Your task to perform on an android device: Show me popular videos on Youtube Image 0: 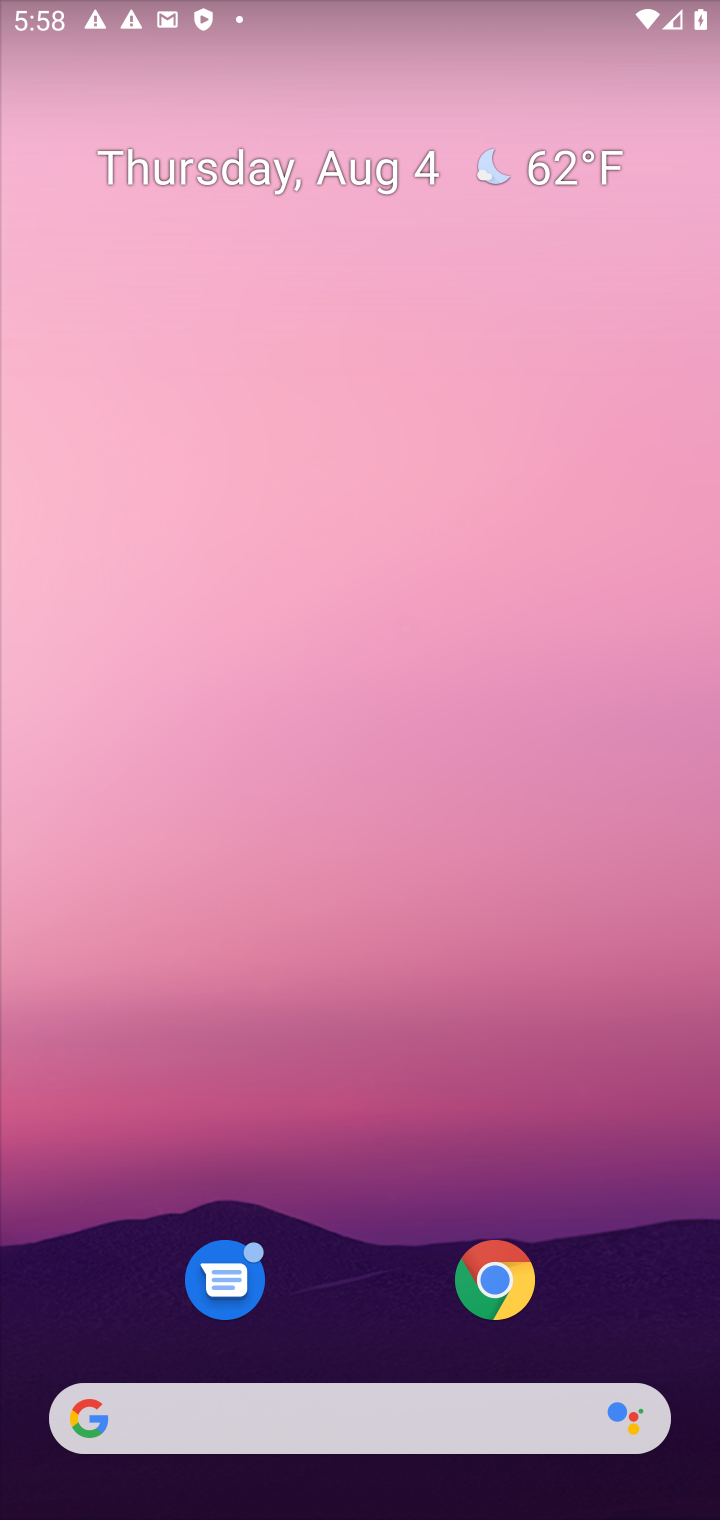
Step 0: drag from (349, 1256) to (325, 336)
Your task to perform on an android device: Show me popular videos on Youtube Image 1: 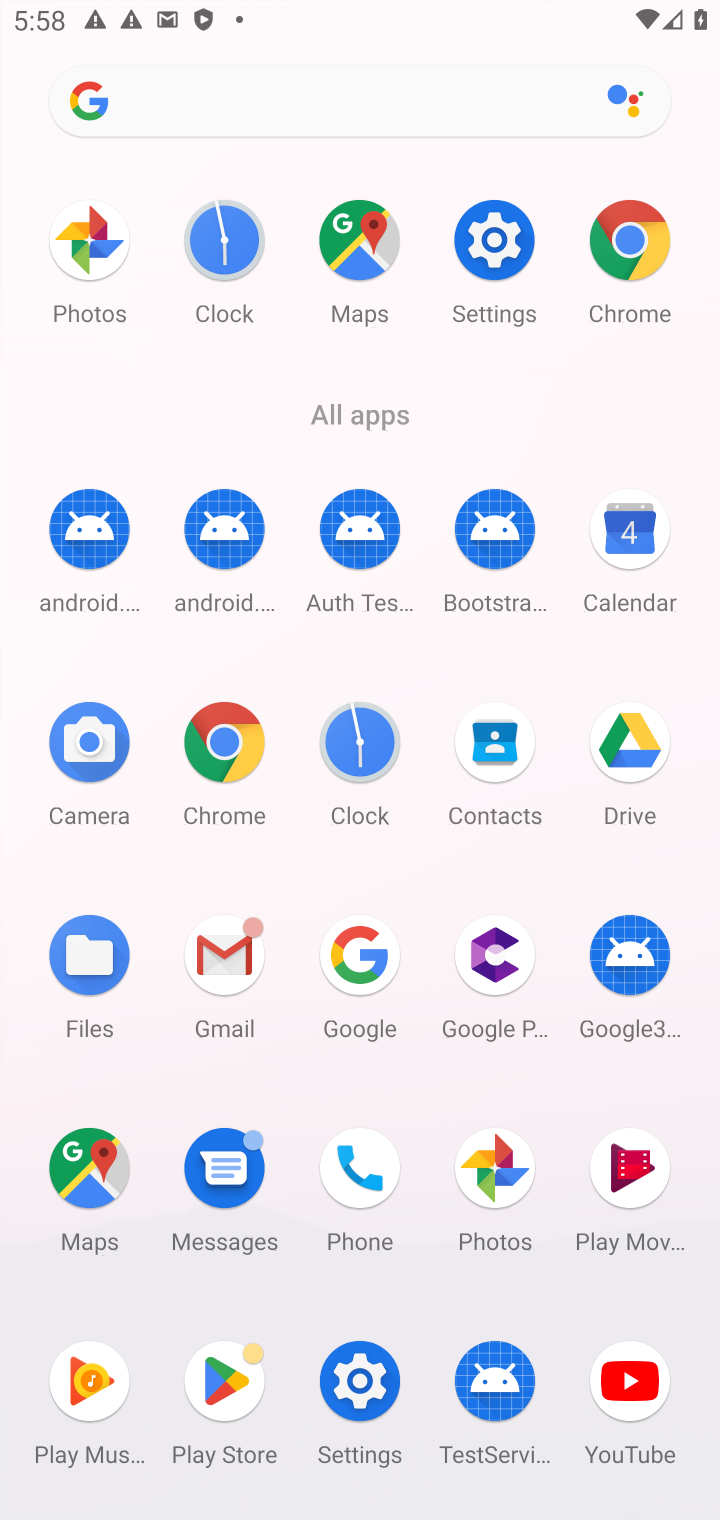
Step 1: click (619, 1450)
Your task to perform on an android device: Show me popular videos on Youtube Image 2: 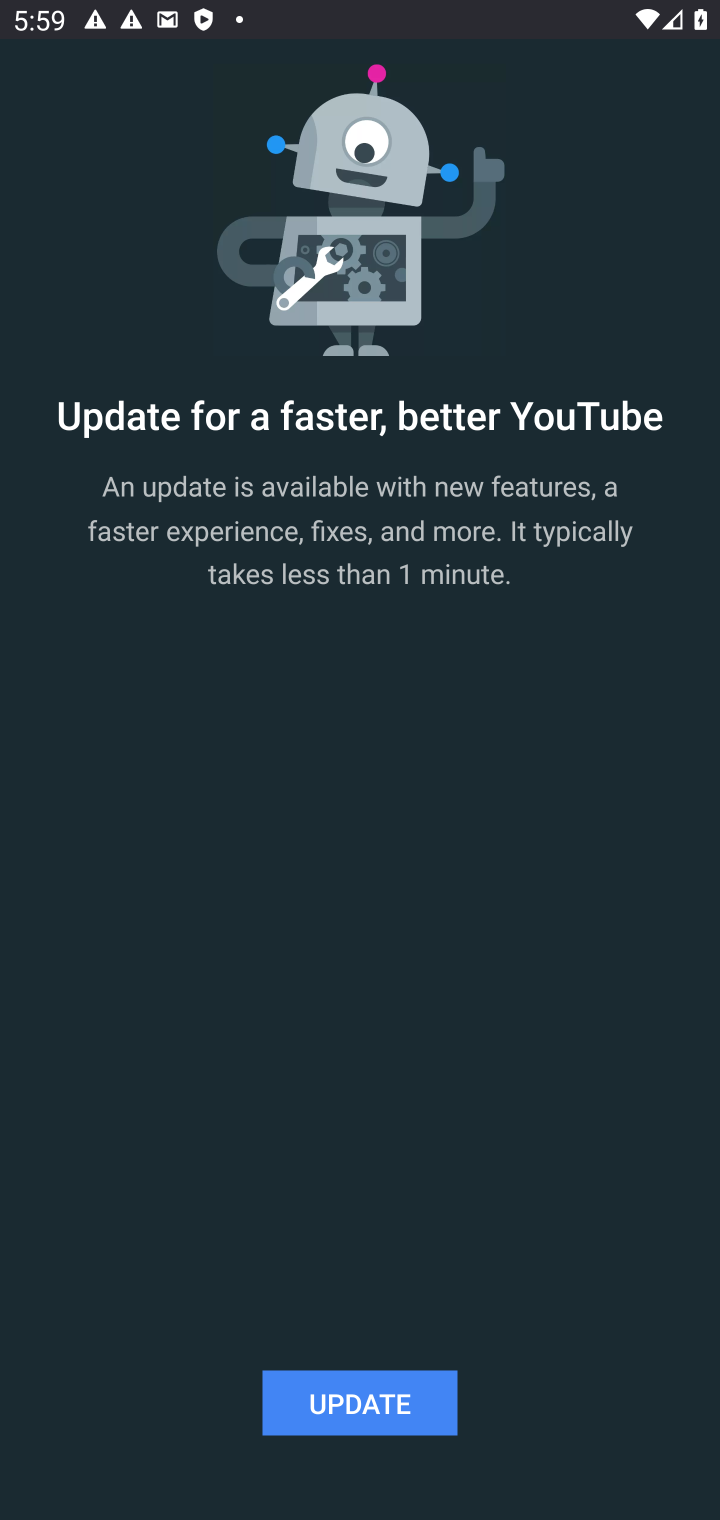
Step 2: press back button
Your task to perform on an android device: Show me popular videos on Youtube Image 3: 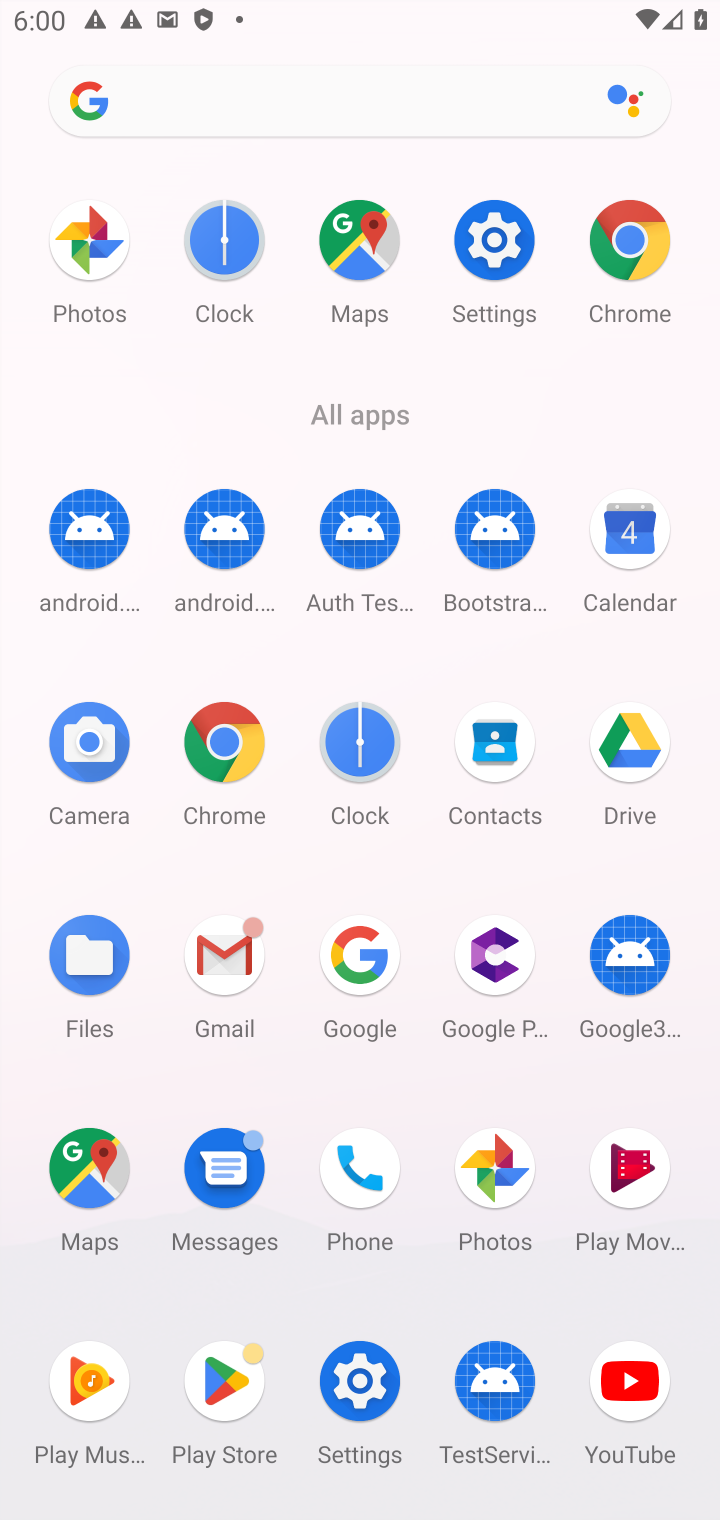
Step 3: click (628, 1394)
Your task to perform on an android device: Show me popular videos on Youtube Image 4: 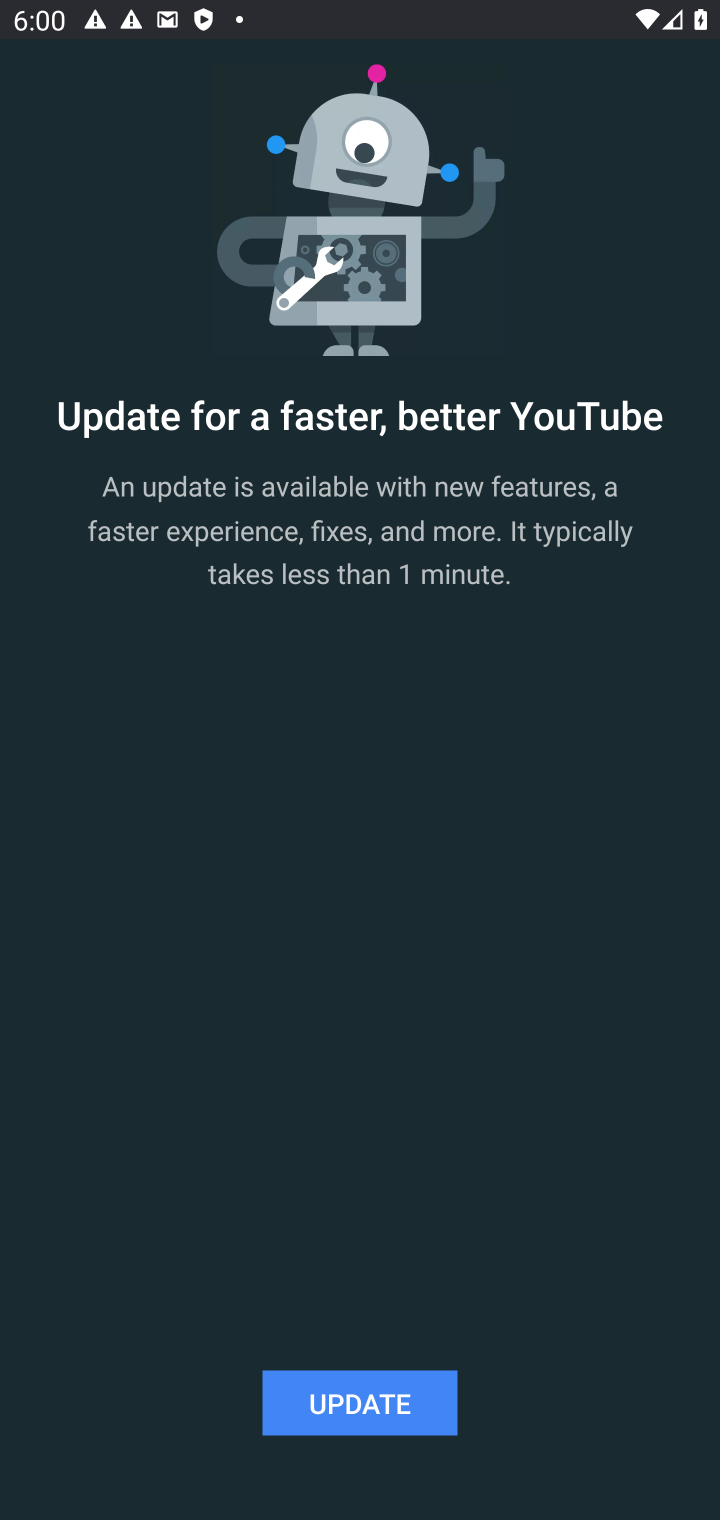
Step 4: click (366, 1391)
Your task to perform on an android device: Show me popular videos on Youtube Image 5: 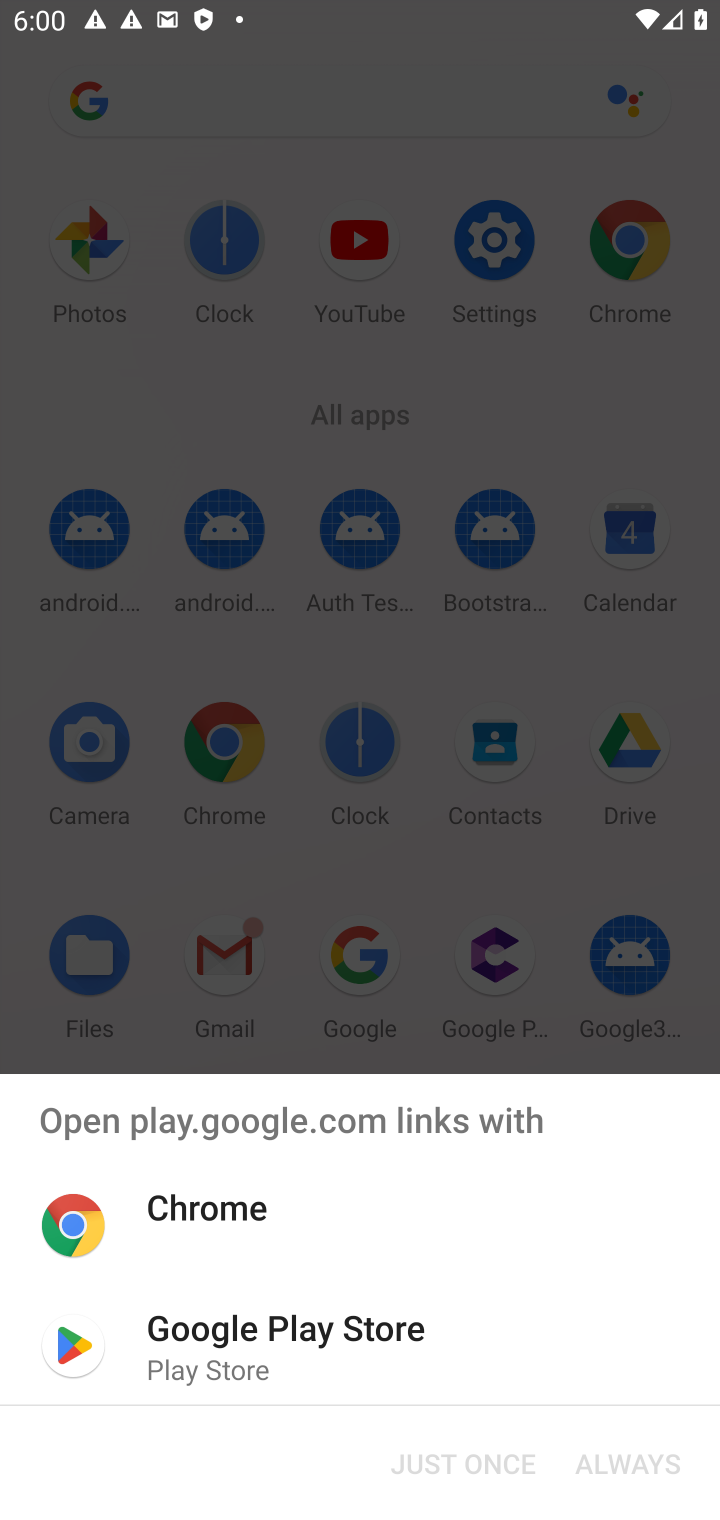
Step 5: click (370, 1369)
Your task to perform on an android device: Show me popular videos on Youtube Image 6: 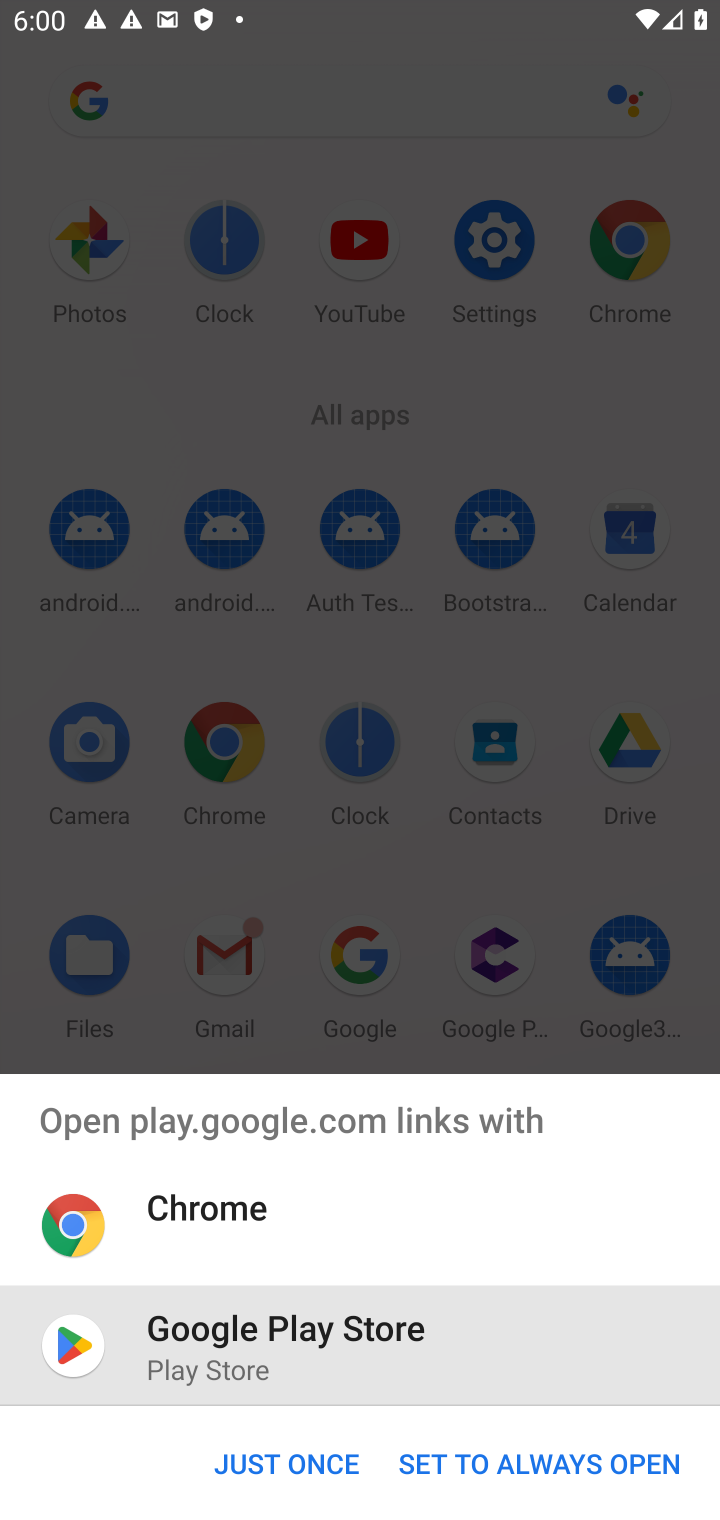
Step 6: click (430, 1472)
Your task to perform on an android device: Show me popular videos on Youtube Image 7: 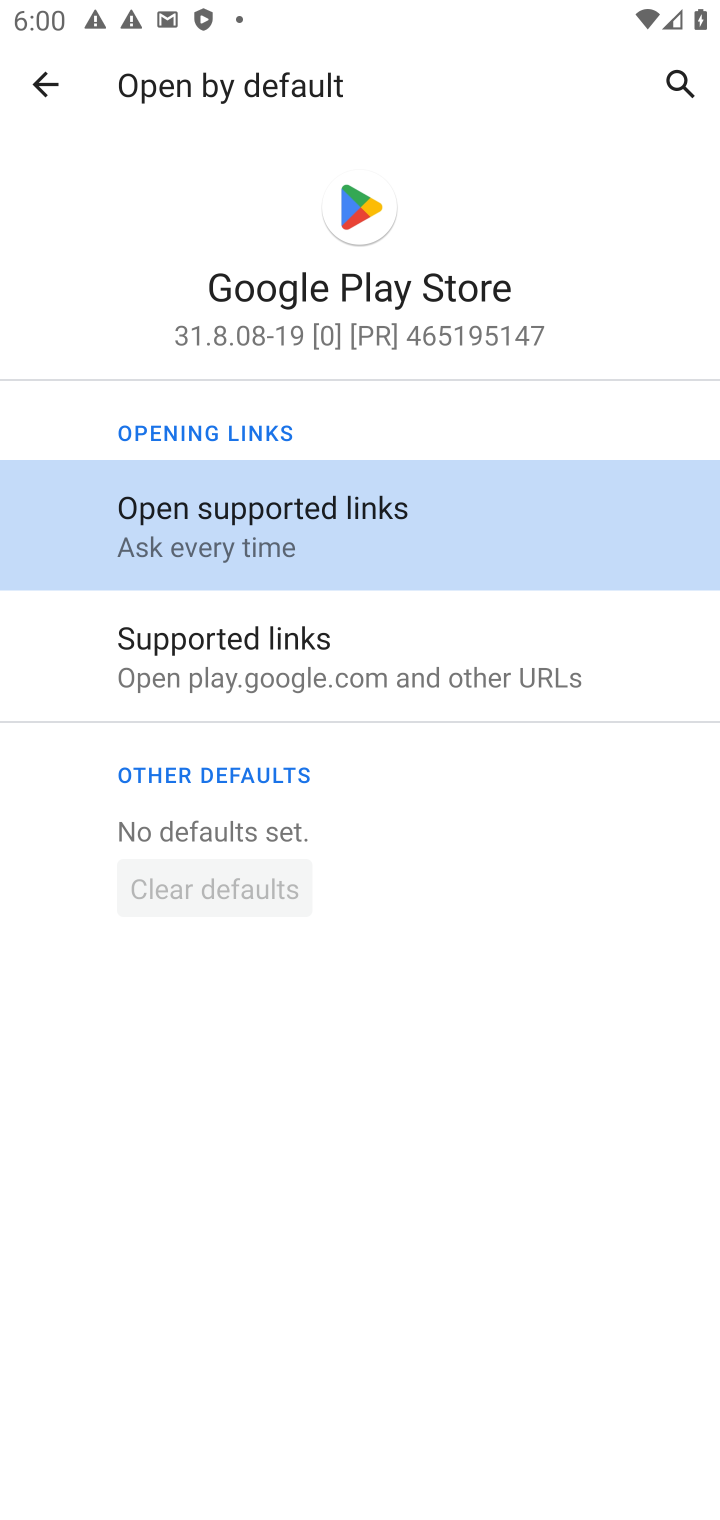
Step 7: click (275, 531)
Your task to perform on an android device: Show me popular videos on Youtube Image 8: 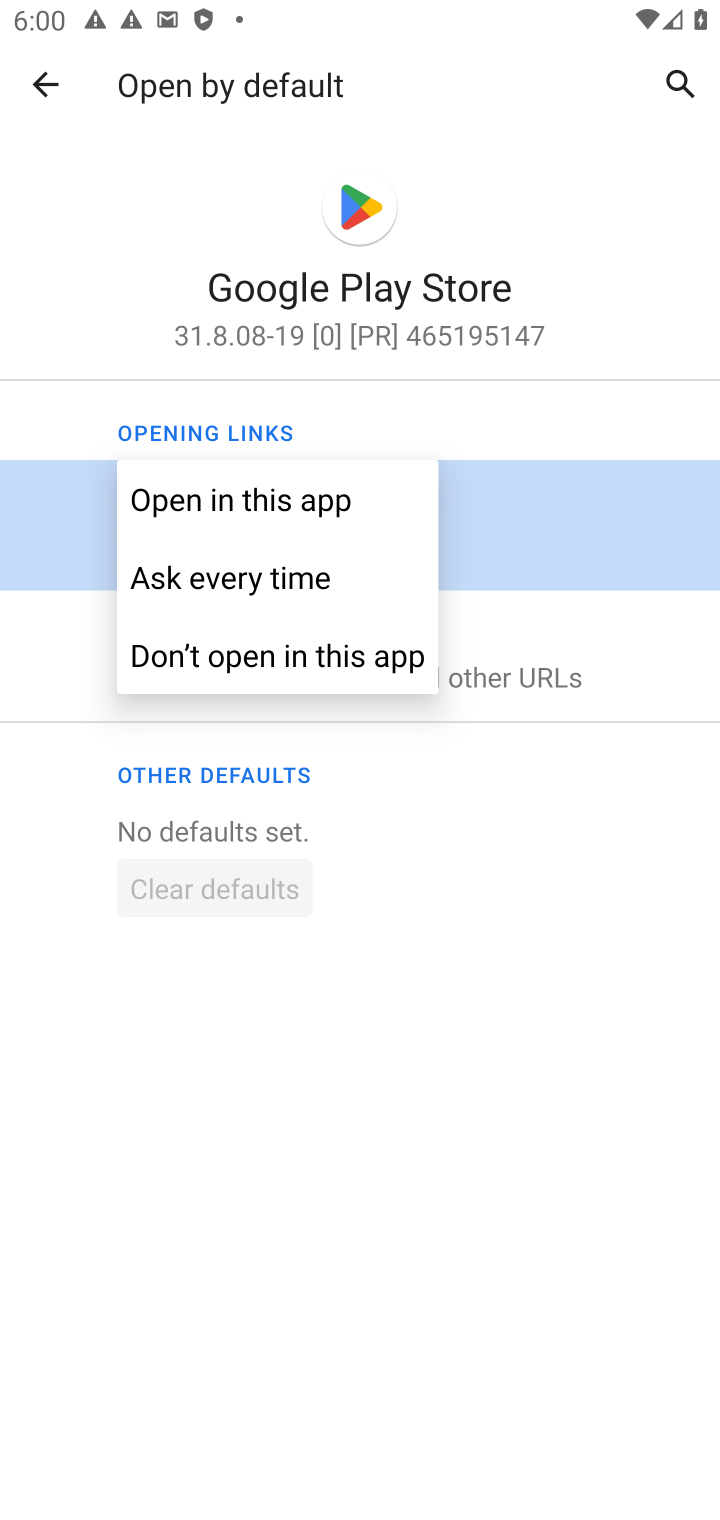
Step 8: click (254, 510)
Your task to perform on an android device: Show me popular videos on Youtube Image 9: 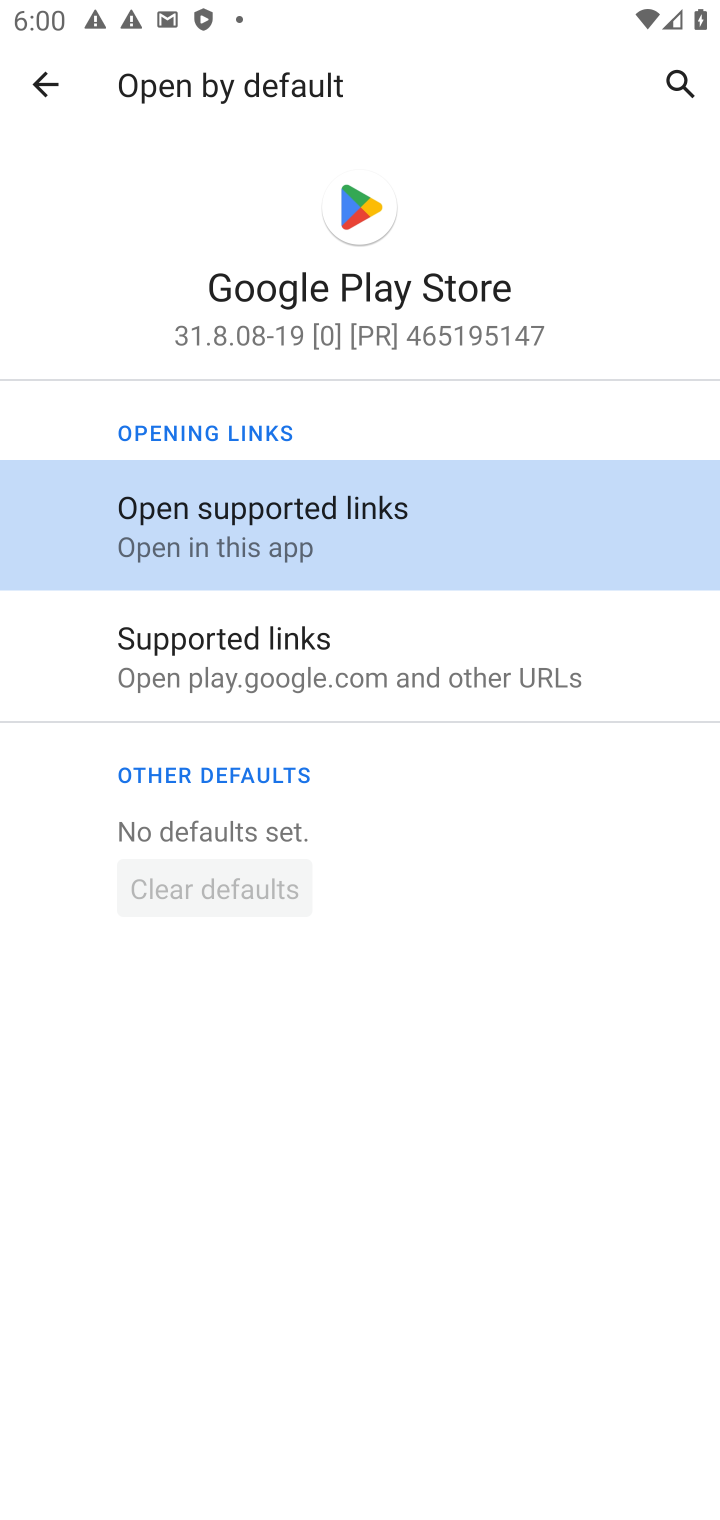
Step 9: click (47, 93)
Your task to perform on an android device: Show me popular videos on Youtube Image 10: 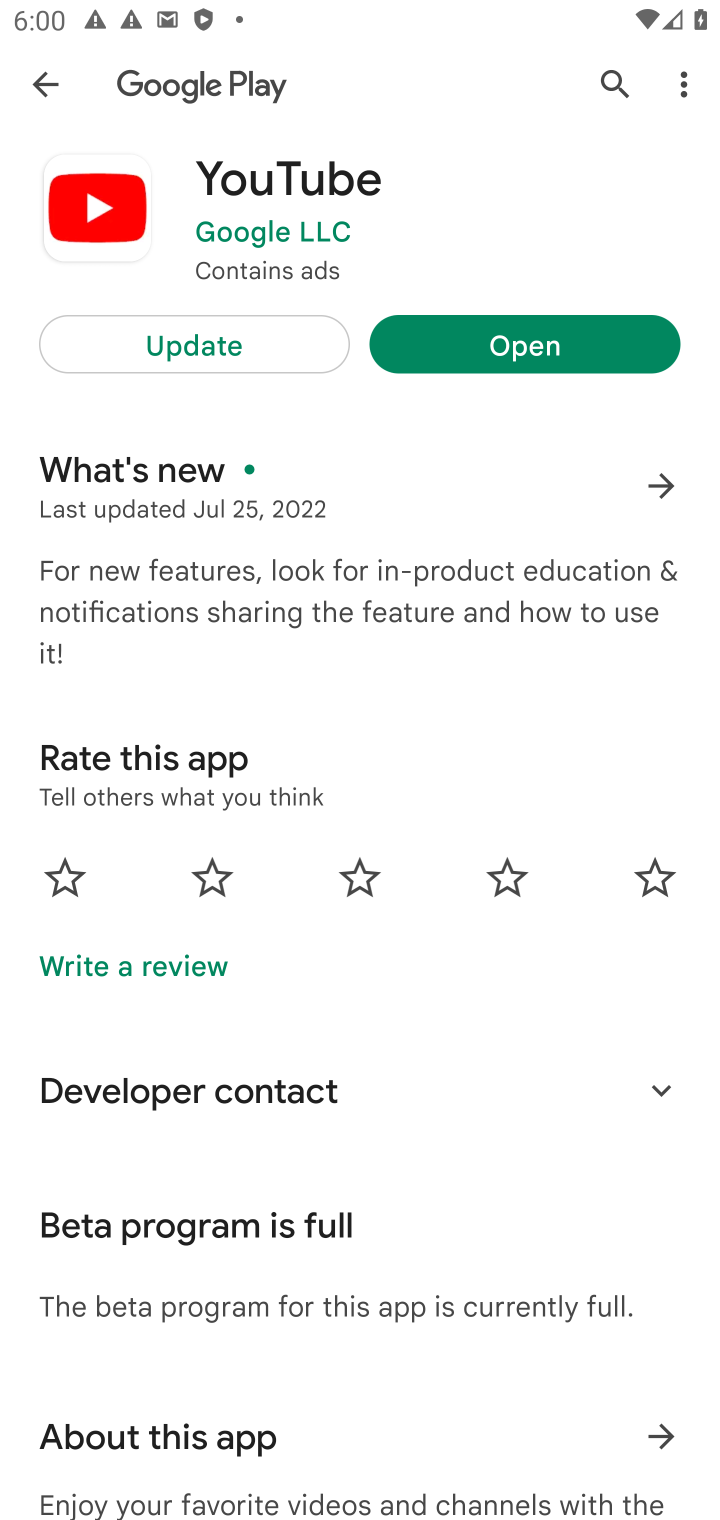
Step 10: task complete